Your task to perform on an android device: open a new tab in the chrome app Image 0: 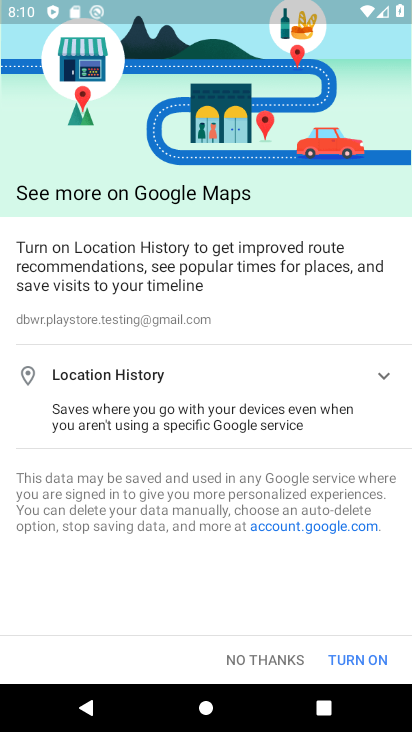
Step 0: press home button
Your task to perform on an android device: open a new tab in the chrome app Image 1: 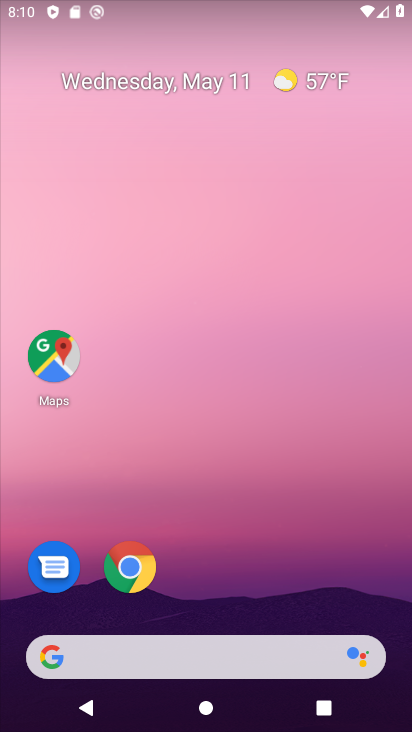
Step 1: click (118, 558)
Your task to perform on an android device: open a new tab in the chrome app Image 2: 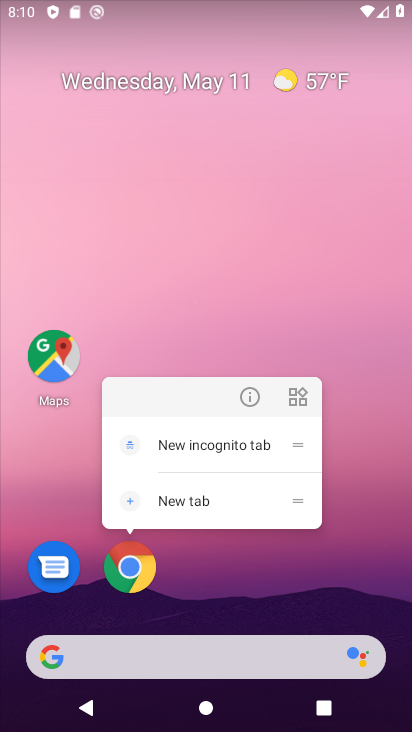
Step 2: click (128, 569)
Your task to perform on an android device: open a new tab in the chrome app Image 3: 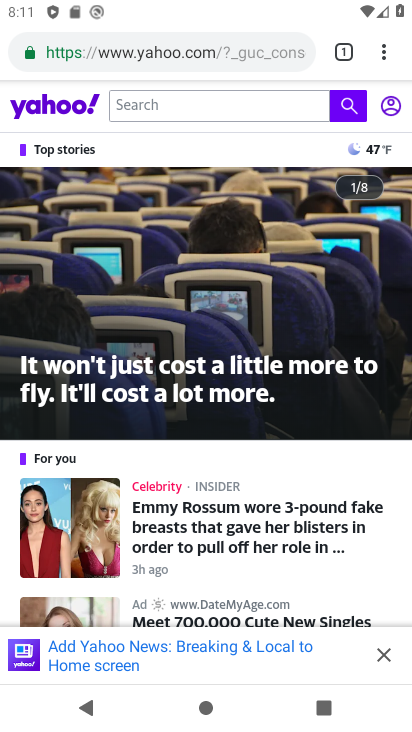
Step 3: click (383, 48)
Your task to perform on an android device: open a new tab in the chrome app Image 4: 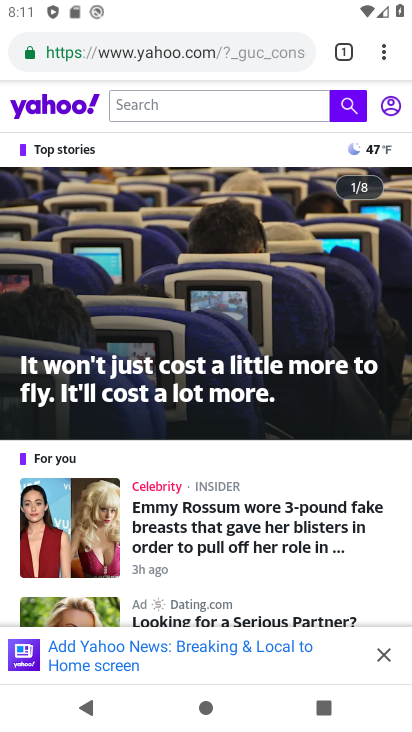
Step 4: click (382, 44)
Your task to perform on an android device: open a new tab in the chrome app Image 5: 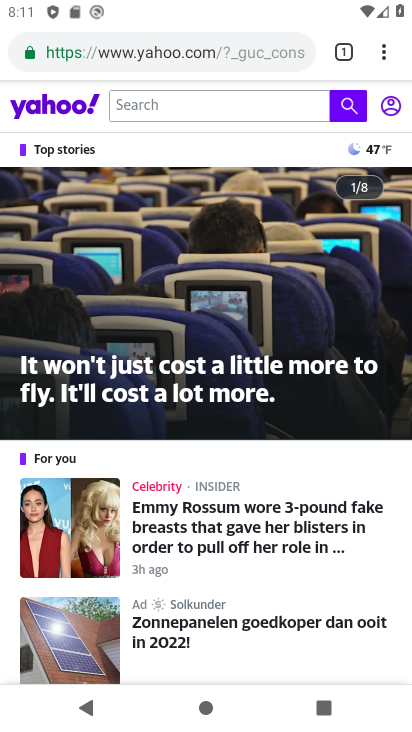
Step 5: click (345, 49)
Your task to perform on an android device: open a new tab in the chrome app Image 6: 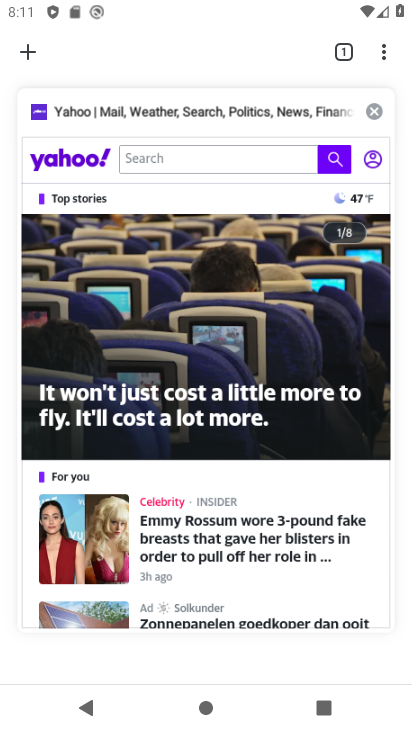
Step 6: click (25, 48)
Your task to perform on an android device: open a new tab in the chrome app Image 7: 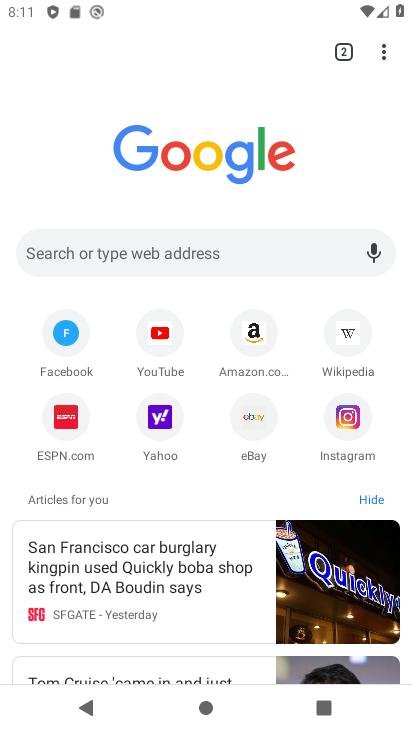
Step 7: task complete